Your task to perform on an android device: open device folders in google photos Image 0: 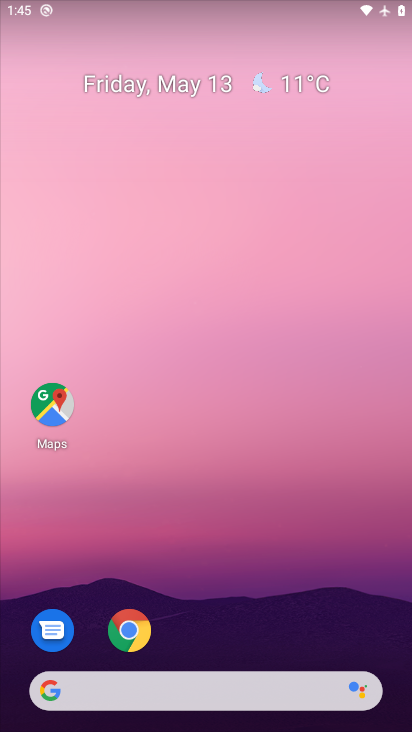
Step 0: drag from (313, 587) to (318, 124)
Your task to perform on an android device: open device folders in google photos Image 1: 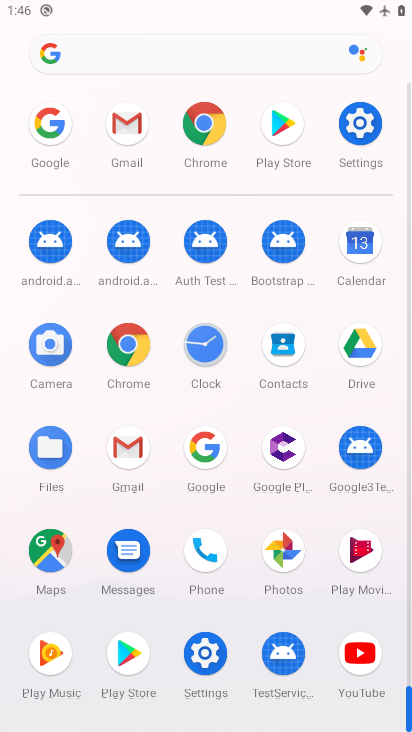
Step 1: click (298, 547)
Your task to perform on an android device: open device folders in google photos Image 2: 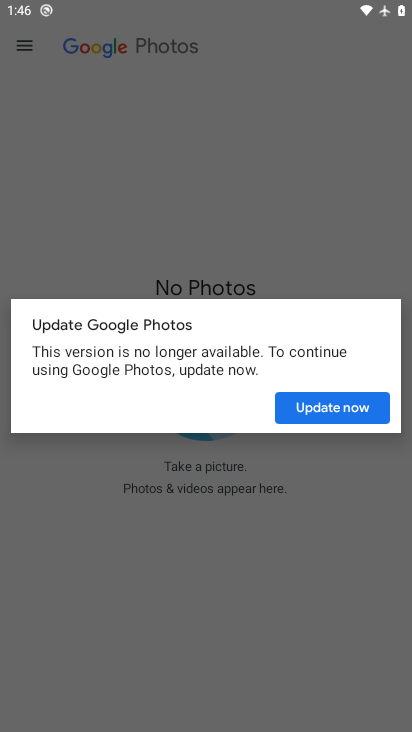
Step 2: click (359, 405)
Your task to perform on an android device: open device folders in google photos Image 3: 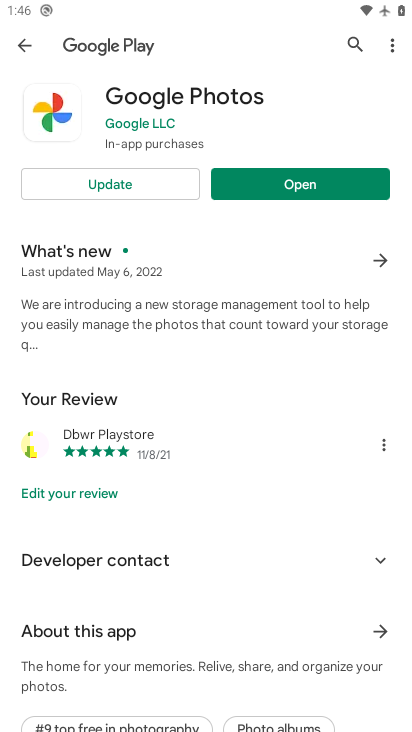
Step 3: click (137, 182)
Your task to perform on an android device: open device folders in google photos Image 4: 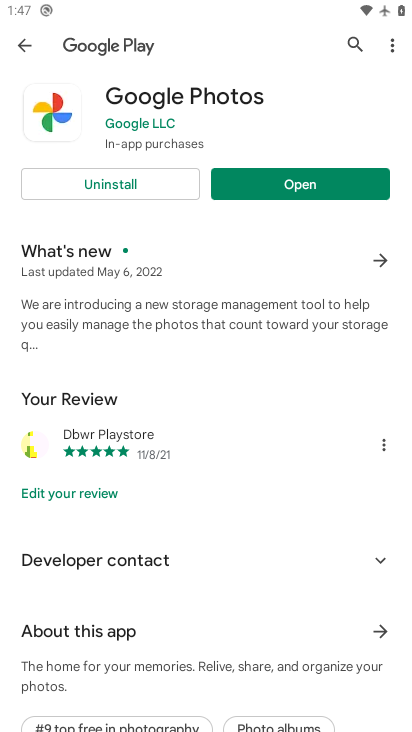
Step 4: click (303, 189)
Your task to perform on an android device: open device folders in google photos Image 5: 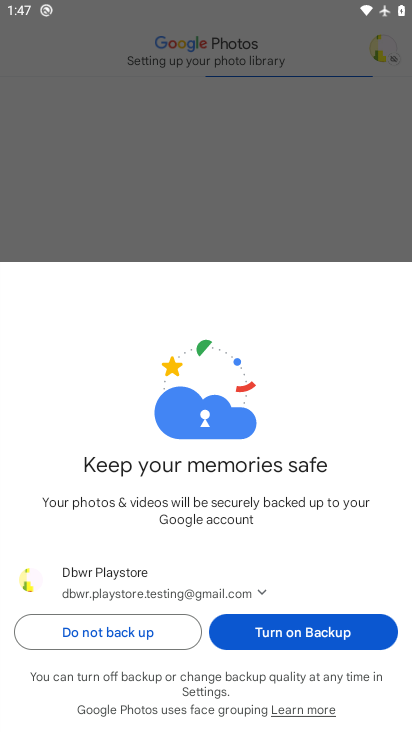
Step 5: click (261, 632)
Your task to perform on an android device: open device folders in google photos Image 6: 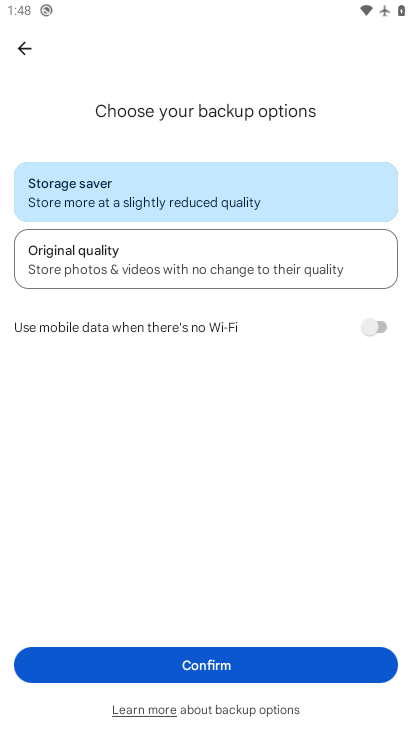
Step 6: click (247, 671)
Your task to perform on an android device: open device folders in google photos Image 7: 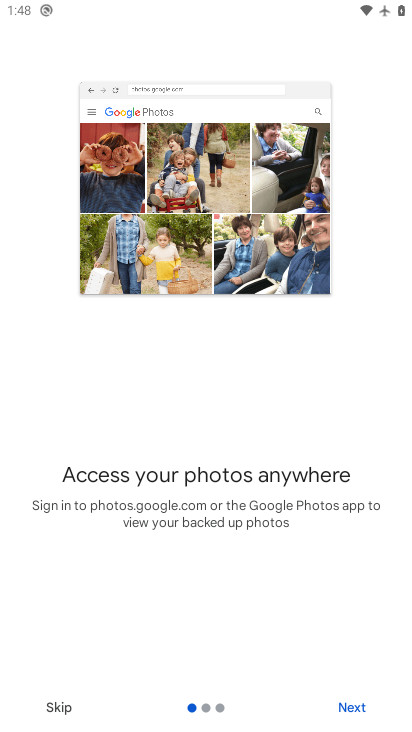
Step 7: click (71, 704)
Your task to perform on an android device: open device folders in google photos Image 8: 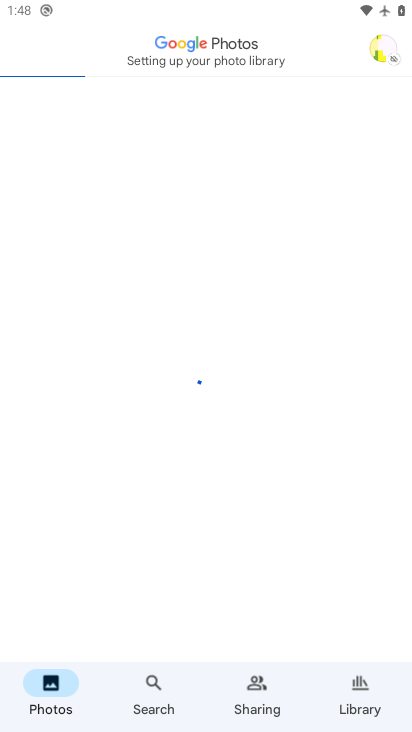
Step 8: click (72, 709)
Your task to perform on an android device: open device folders in google photos Image 9: 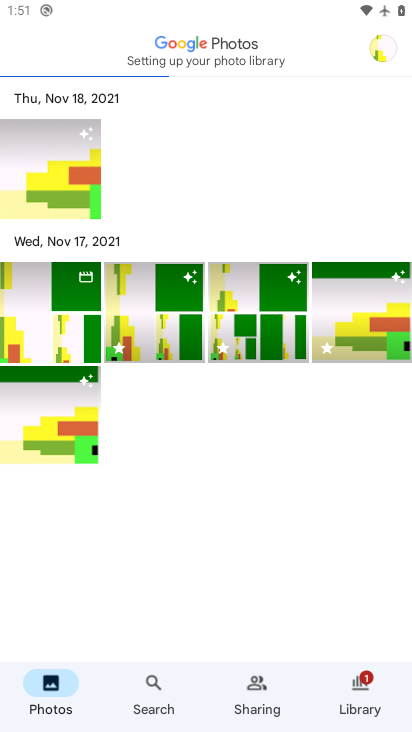
Step 9: drag from (260, 311) to (298, 709)
Your task to perform on an android device: open device folders in google photos Image 10: 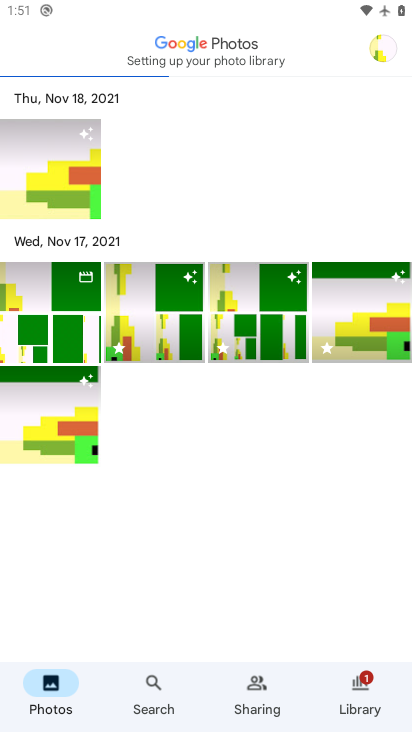
Step 10: click (384, 53)
Your task to perform on an android device: open device folders in google photos Image 11: 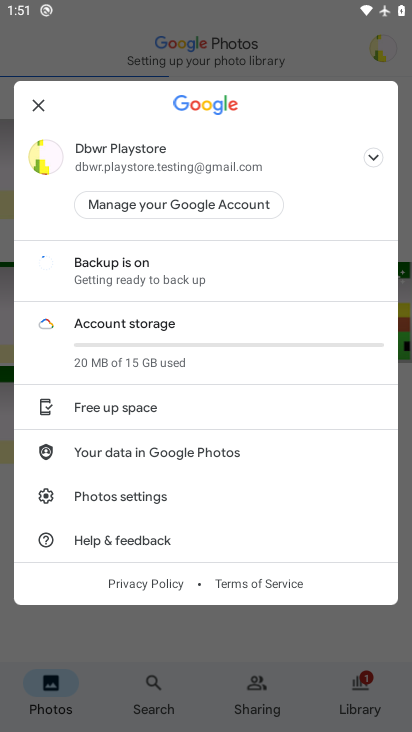
Step 11: click (330, 661)
Your task to perform on an android device: open device folders in google photos Image 12: 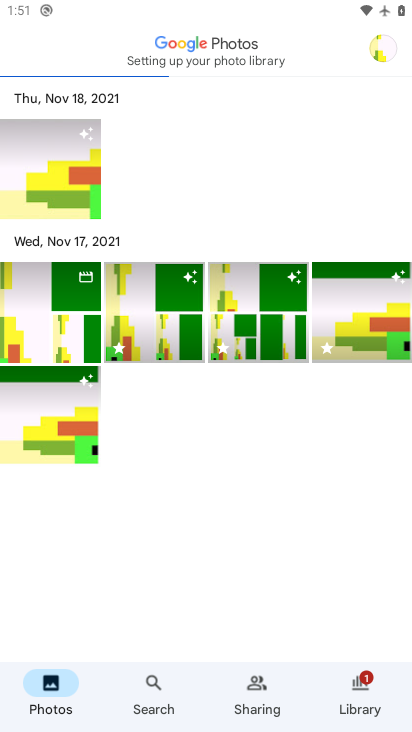
Step 12: click (149, 697)
Your task to perform on an android device: open device folders in google photos Image 13: 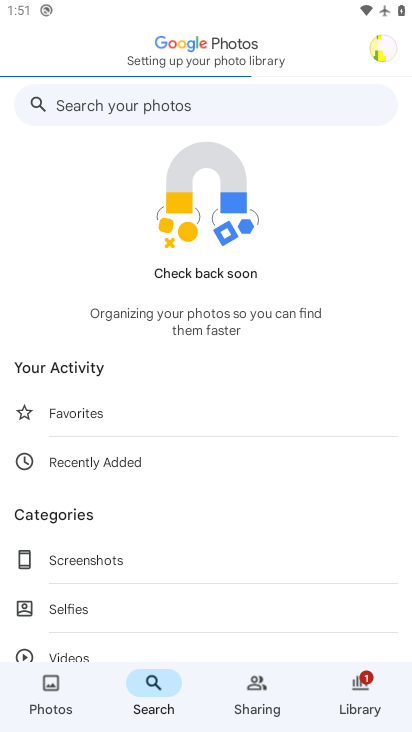
Step 13: drag from (174, 583) to (199, 263)
Your task to perform on an android device: open device folders in google photos Image 14: 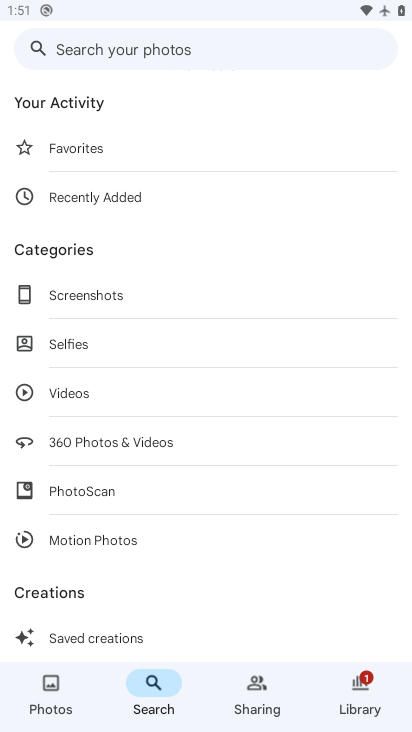
Step 14: drag from (186, 361) to (192, 643)
Your task to perform on an android device: open device folders in google photos Image 15: 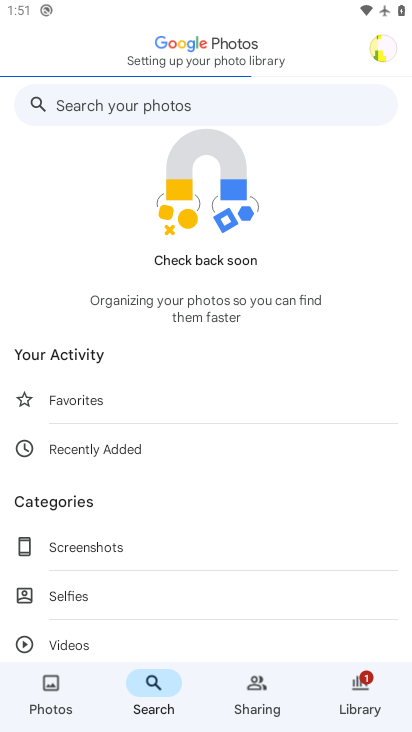
Step 15: click (126, 116)
Your task to perform on an android device: open device folders in google photos Image 16: 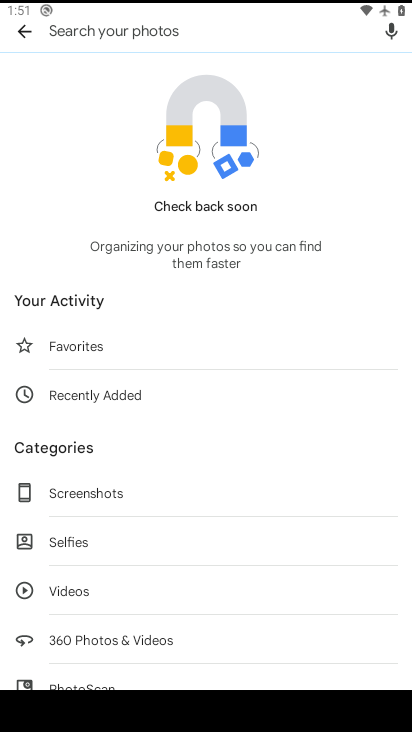
Step 16: type "device folders"
Your task to perform on an android device: open device folders in google photos Image 17: 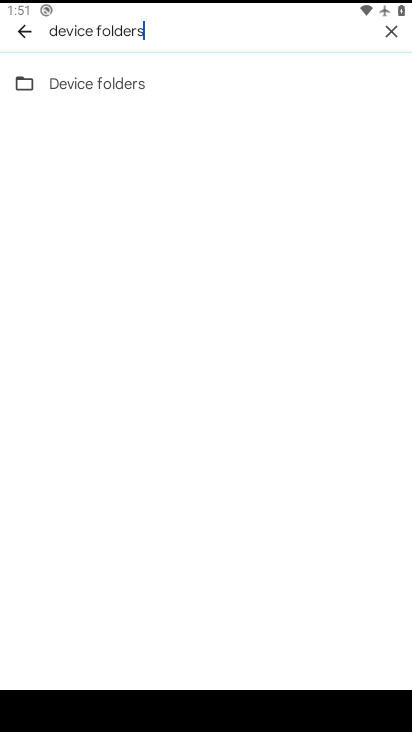
Step 17: type ""
Your task to perform on an android device: open device folders in google photos Image 18: 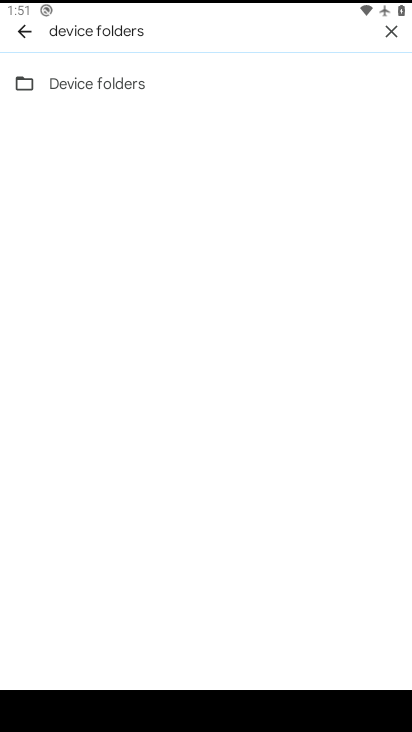
Step 18: click (138, 92)
Your task to perform on an android device: open device folders in google photos Image 19: 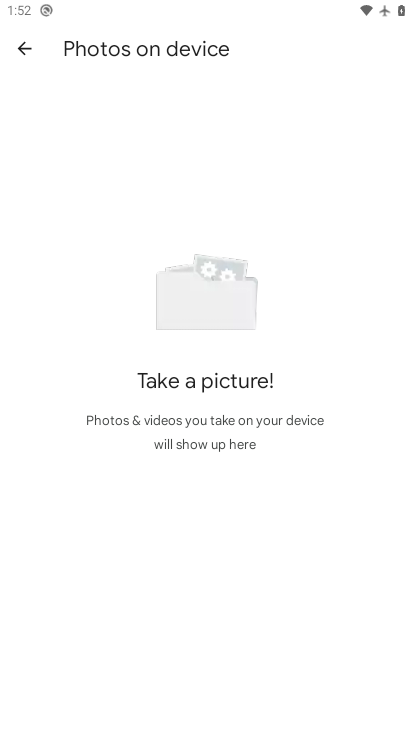
Step 19: task complete